Your task to perform on an android device: Check the news Image 0: 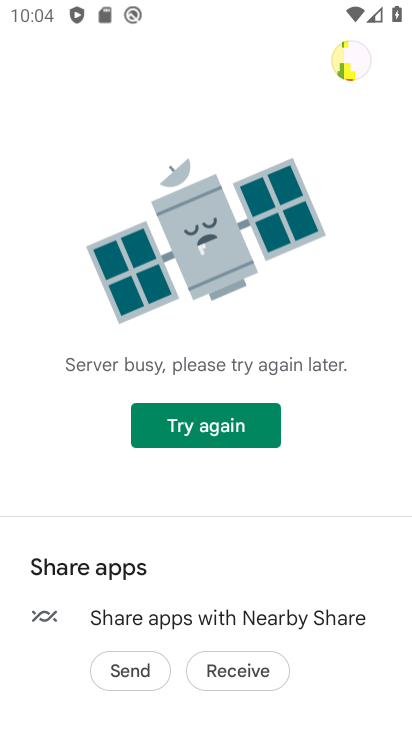
Step 0: press home button
Your task to perform on an android device: Check the news Image 1: 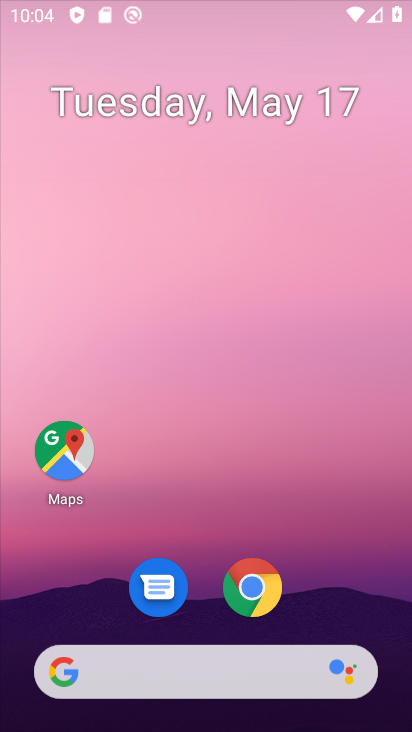
Step 1: drag from (385, 619) to (270, 26)
Your task to perform on an android device: Check the news Image 2: 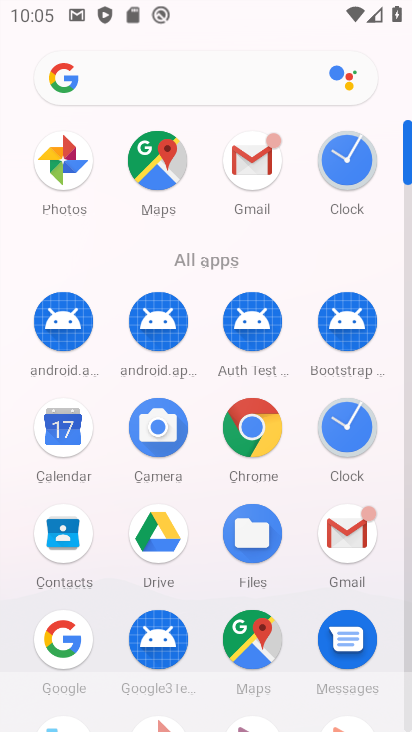
Step 2: click (259, 441)
Your task to perform on an android device: Check the news Image 3: 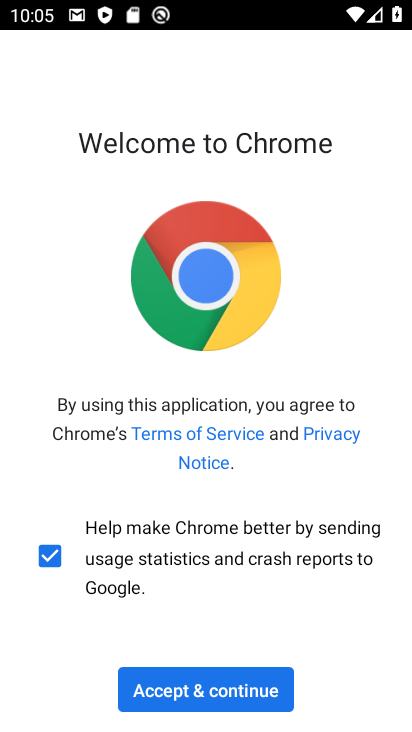
Step 3: click (163, 695)
Your task to perform on an android device: Check the news Image 4: 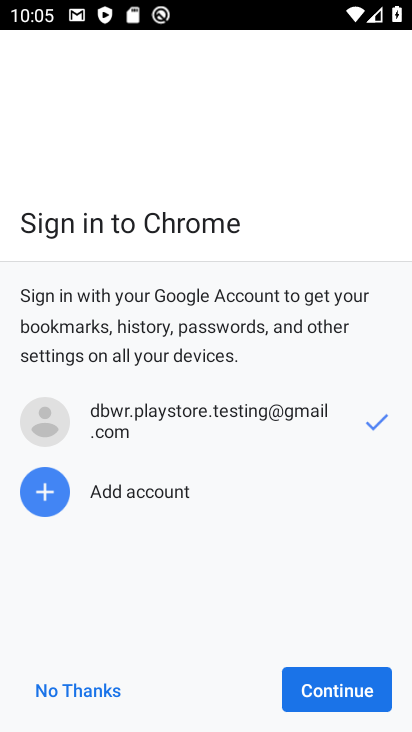
Step 4: click (359, 681)
Your task to perform on an android device: Check the news Image 5: 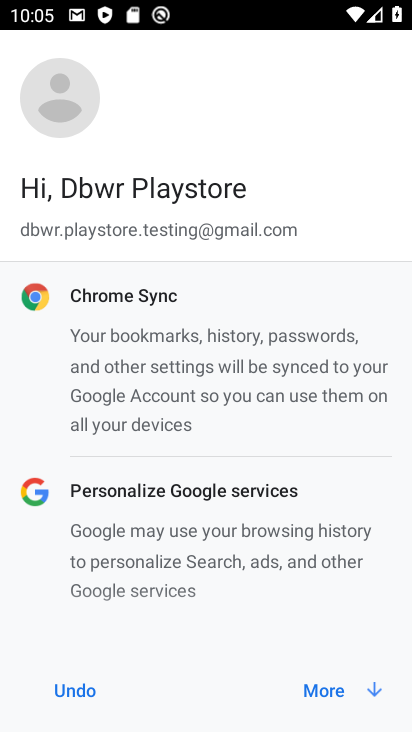
Step 5: click (349, 686)
Your task to perform on an android device: Check the news Image 6: 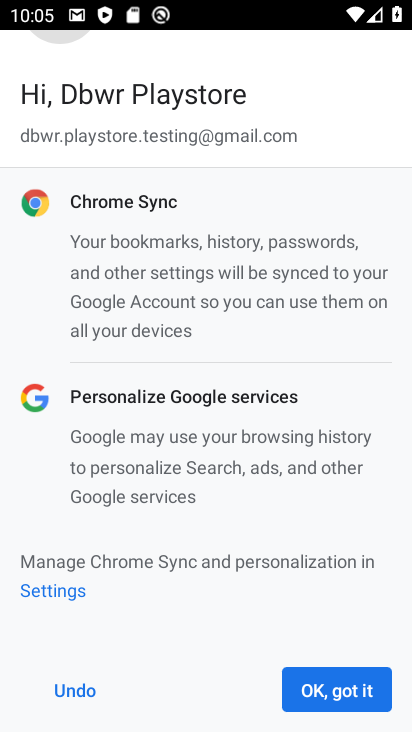
Step 6: click (349, 686)
Your task to perform on an android device: Check the news Image 7: 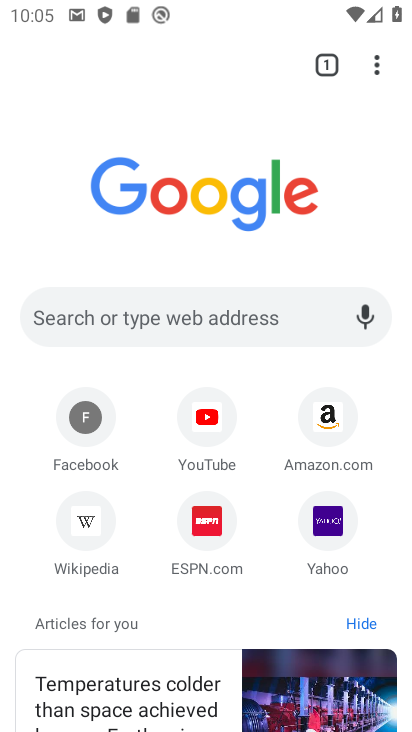
Step 7: drag from (130, 659) to (238, 284)
Your task to perform on an android device: Check the news Image 8: 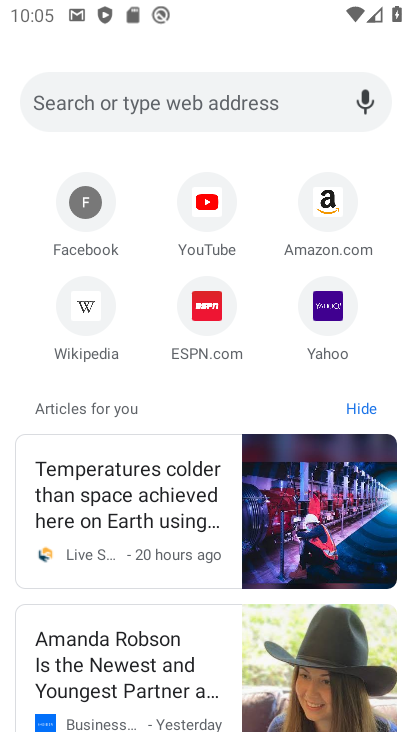
Step 8: click (145, 474)
Your task to perform on an android device: Check the news Image 9: 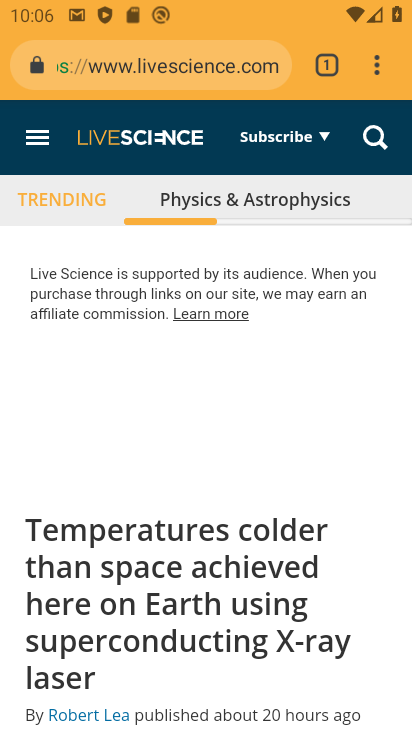
Step 9: task complete